Your task to perform on an android device: check the backup settings in the google photos Image 0: 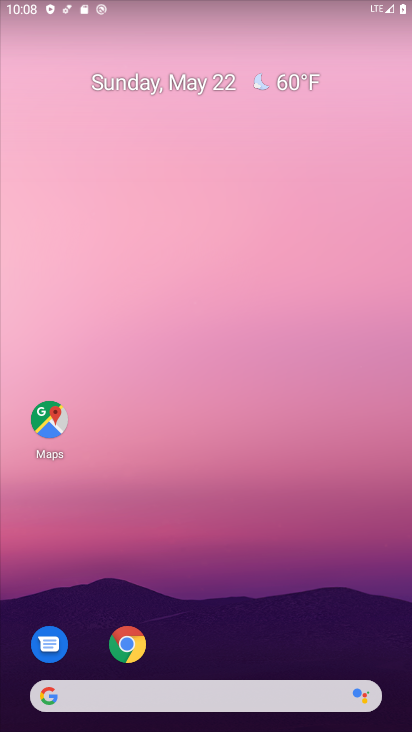
Step 0: drag from (192, 620) to (289, 117)
Your task to perform on an android device: check the backup settings in the google photos Image 1: 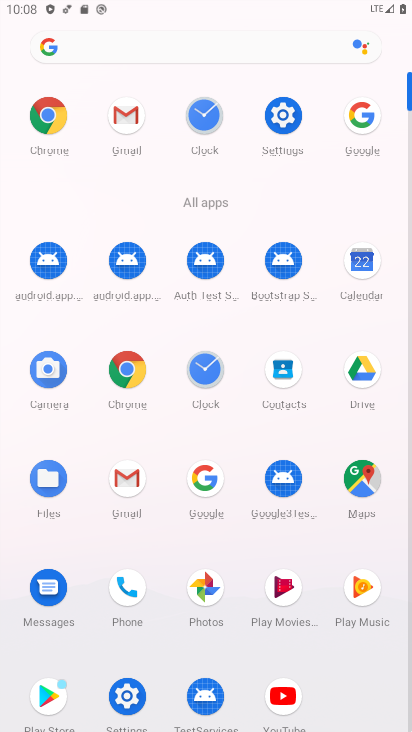
Step 1: click (217, 586)
Your task to perform on an android device: check the backup settings in the google photos Image 2: 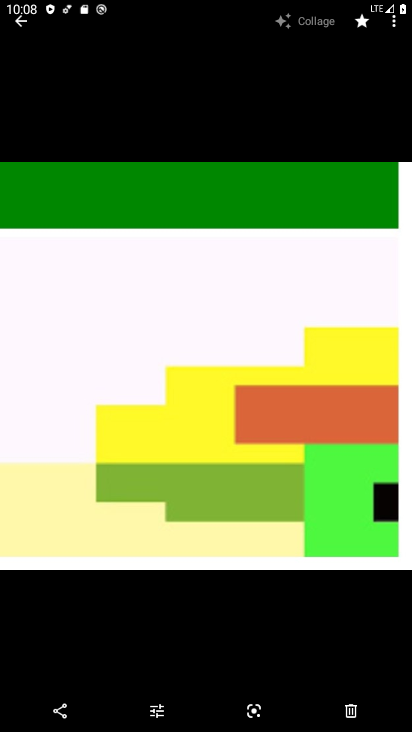
Step 2: click (21, 21)
Your task to perform on an android device: check the backup settings in the google photos Image 3: 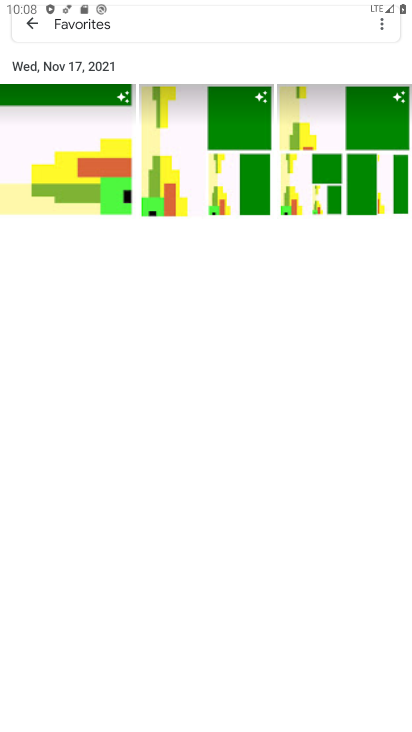
Step 3: click (36, 20)
Your task to perform on an android device: check the backup settings in the google photos Image 4: 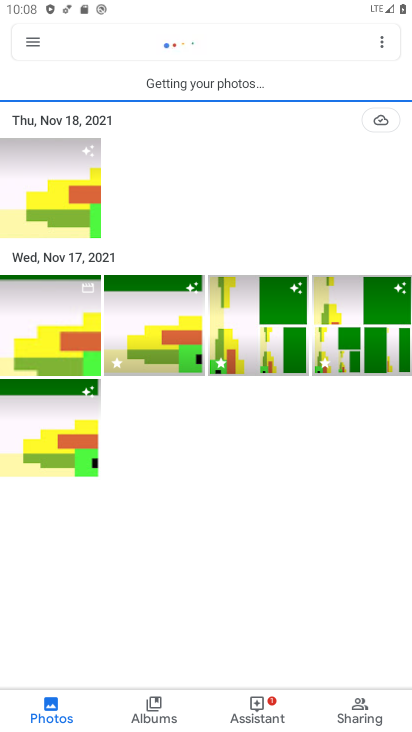
Step 4: click (30, 43)
Your task to perform on an android device: check the backup settings in the google photos Image 5: 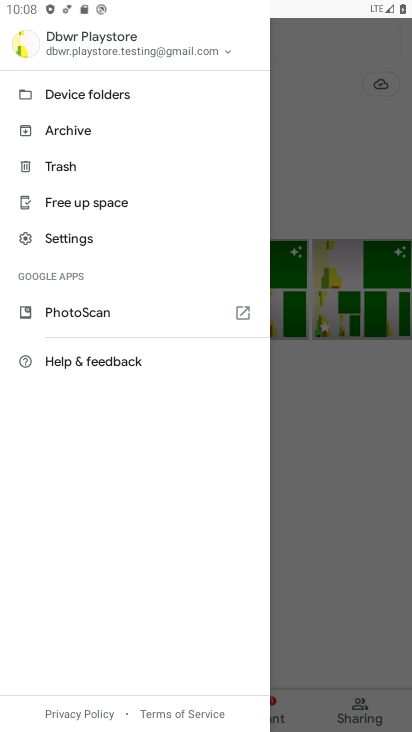
Step 5: click (80, 237)
Your task to perform on an android device: check the backup settings in the google photos Image 6: 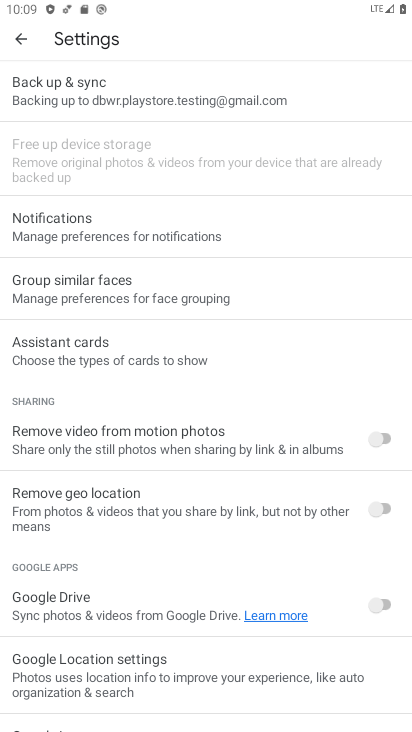
Step 6: drag from (156, 699) to (168, 270)
Your task to perform on an android device: check the backup settings in the google photos Image 7: 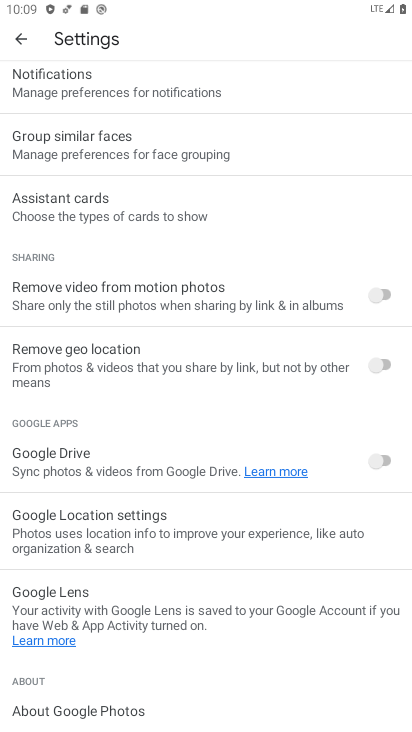
Step 7: drag from (152, 103) to (178, 492)
Your task to perform on an android device: check the backup settings in the google photos Image 8: 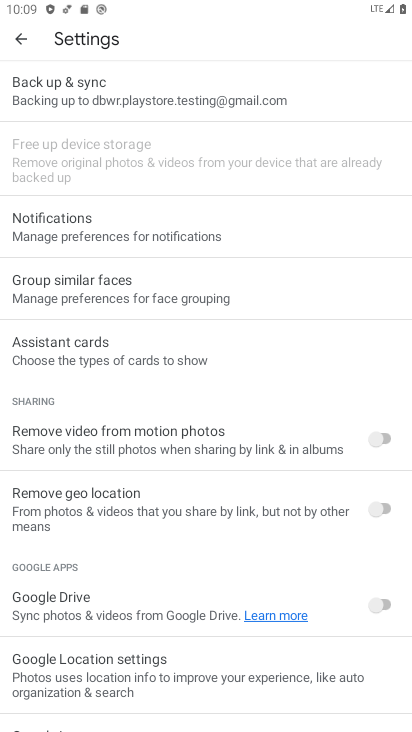
Step 8: click (80, 89)
Your task to perform on an android device: check the backup settings in the google photos Image 9: 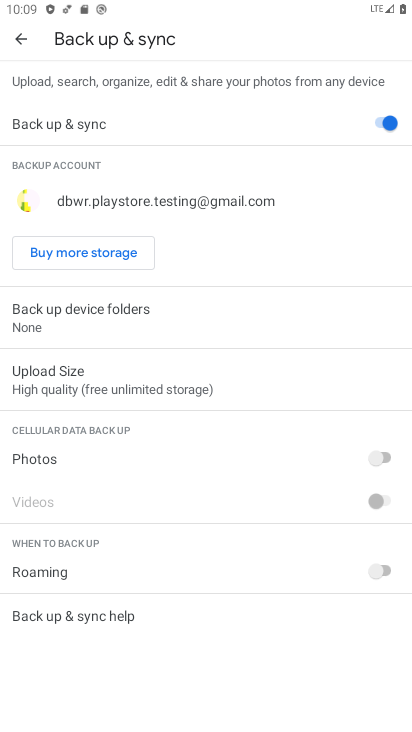
Step 9: task complete